Your task to perform on an android device: check the backup settings in the google photos Image 0: 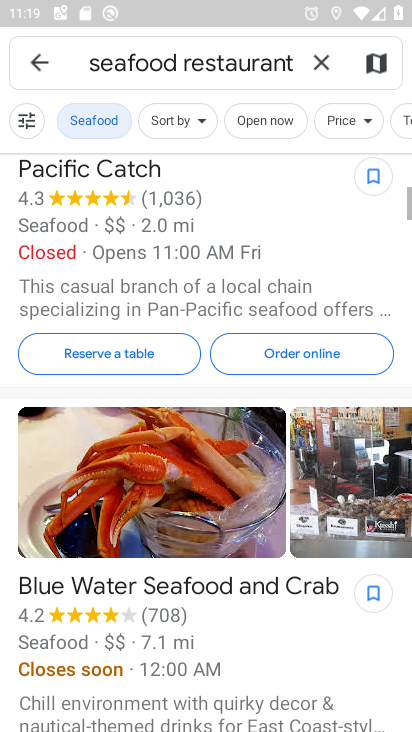
Step 0: press home button
Your task to perform on an android device: check the backup settings in the google photos Image 1: 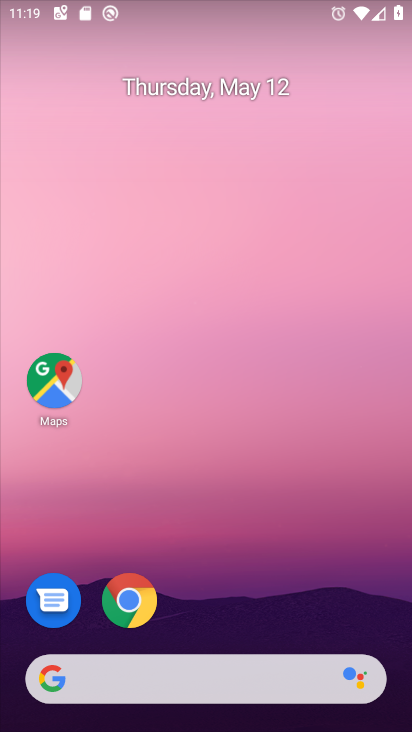
Step 1: drag from (238, 600) to (174, 200)
Your task to perform on an android device: check the backup settings in the google photos Image 2: 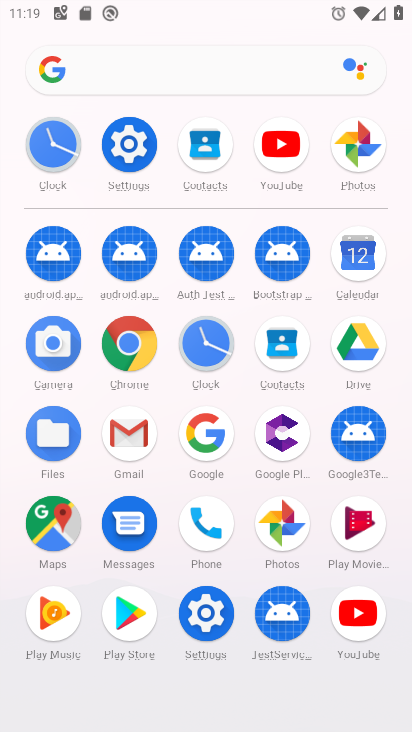
Step 2: click (352, 160)
Your task to perform on an android device: check the backup settings in the google photos Image 3: 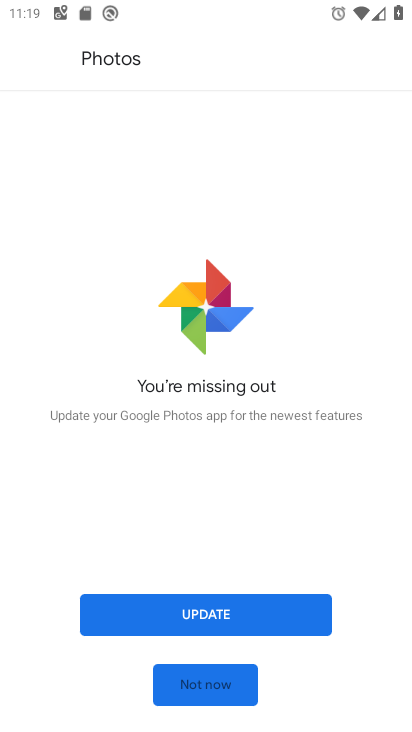
Step 3: click (226, 684)
Your task to perform on an android device: check the backup settings in the google photos Image 4: 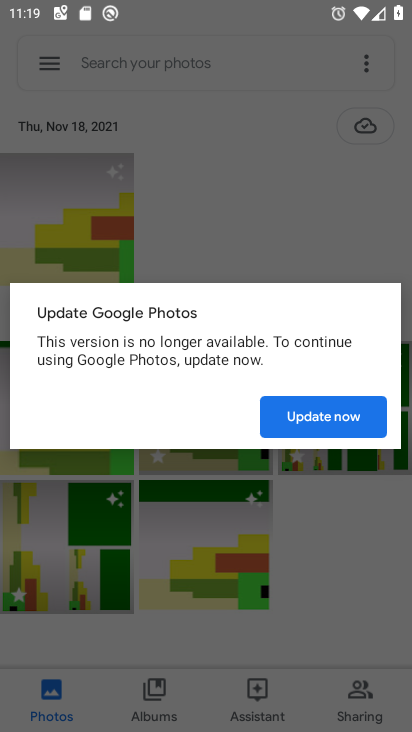
Step 4: click (351, 434)
Your task to perform on an android device: check the backup settings in the google photos Image 5: 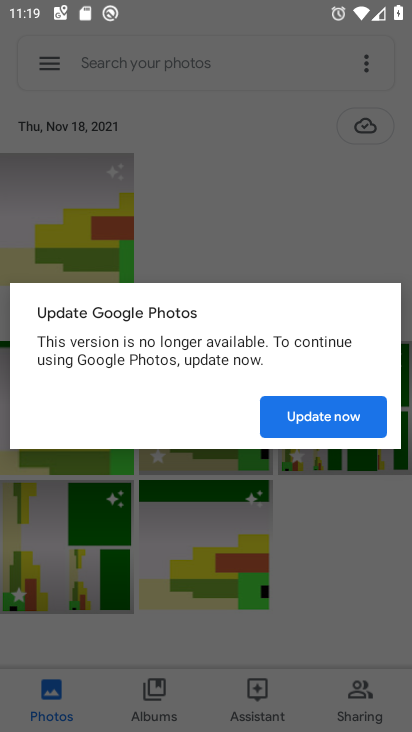
Step 5: click (306, 417)
Your task to perform on an android device: check the backup settings in the google photos Image 6: 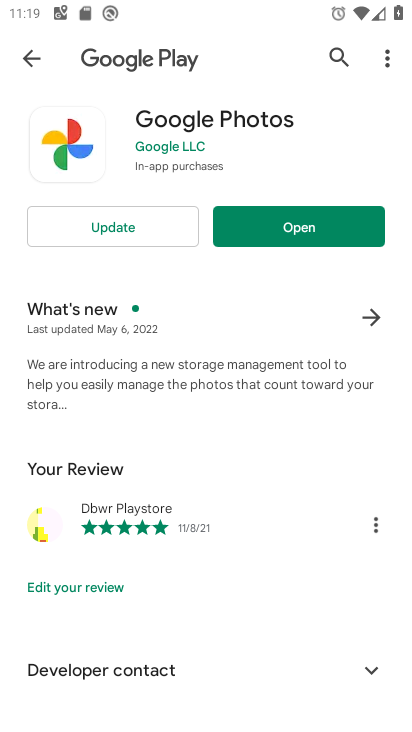
Step 6: press back button
Your task to perform on an android device: check the backup settings in the google photos Image 7: 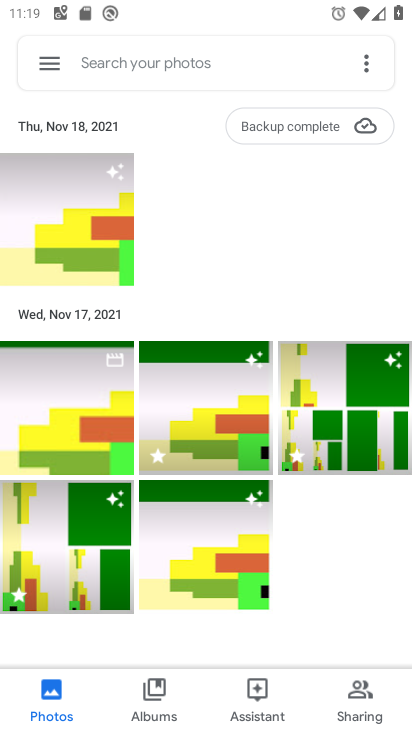
Step 7: click (51, 66)
Your task to perform on an android device: check the backup settings in the google photos Image 8: 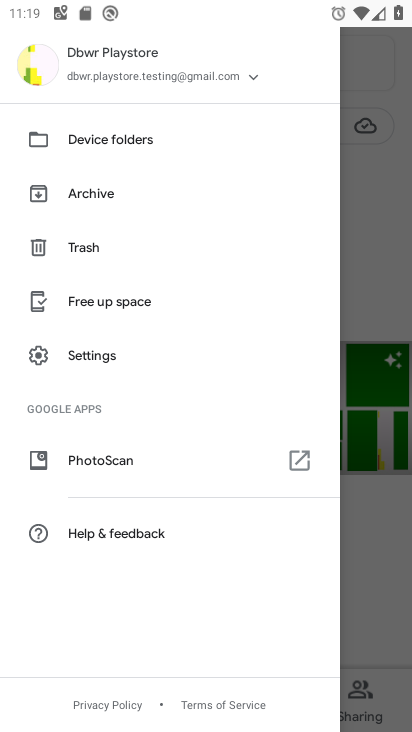
Step 8: click (85, 358)
Your task to perform on an android device: check the backup settings in the google photos Image 9: 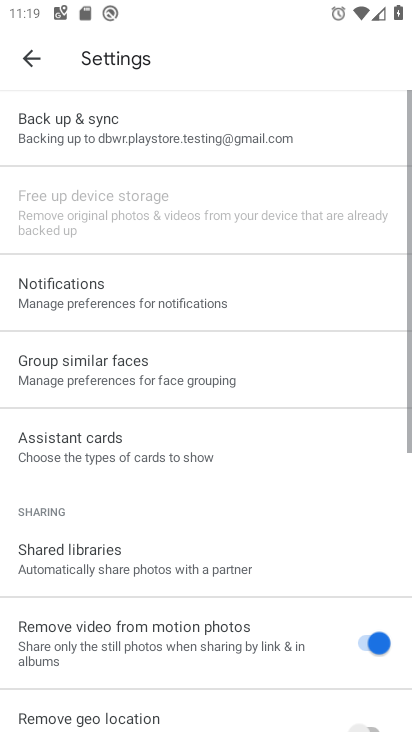
Step 9: click (112, 138)
Your task to perform on an android device: check the backup settings in the google photos Image 10: 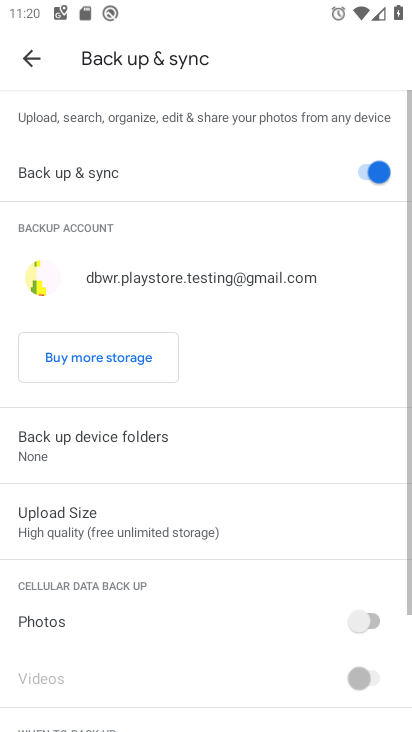
Step 10: task complete